Your task to perform on an android device: make emails show in primary in the gmail app Image 0: 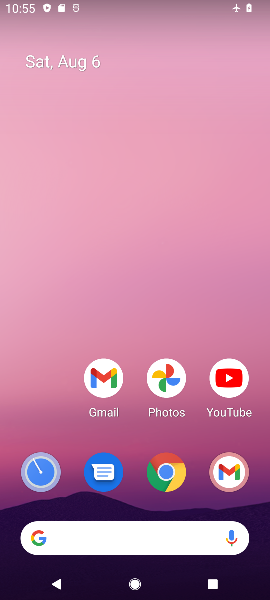
Step 0: drag from (172, 512) to (85, 201)
Your task to perform on an android device: make emails show in primary in the gmail app Image 1: 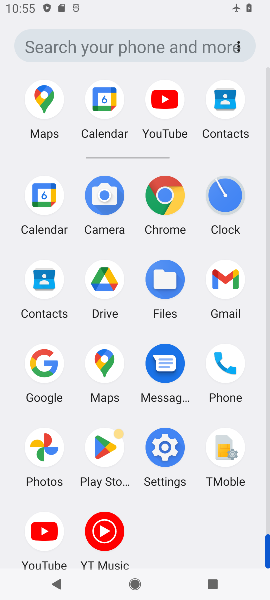
Step 1: click (163, 455)
Your task to perform on an android device: make emails show in primary in the gmail app Image 2: 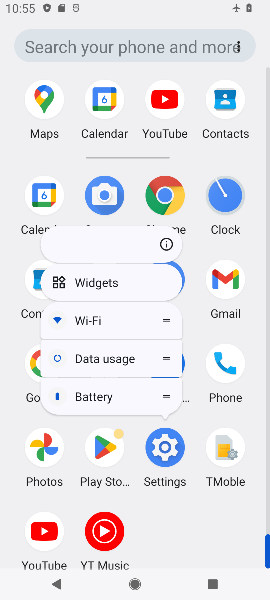
Step 2: click (159, 451)
Your task to perform on an android device: make emails show in primary in the gmail app Image 3: 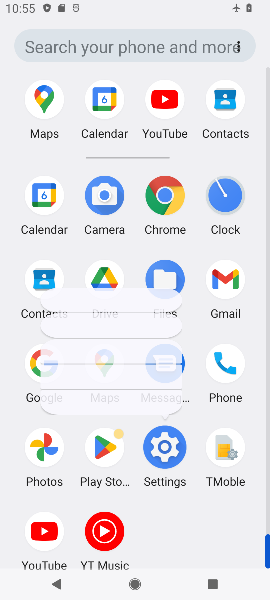
Step 3: click (159, 451)
Your task to perform on an android device: make emails show in primary in the gmail app Image 4: 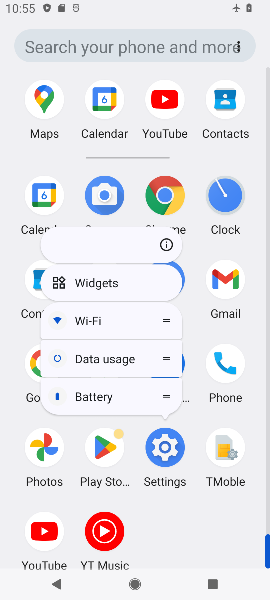
Step 4: click (160, 449)
Your task to perform on an android device: make emails show in primary in the gmail app Image 5: 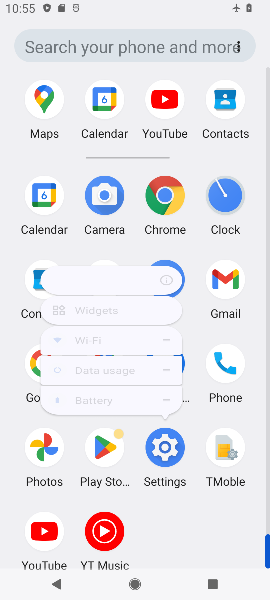
Step 5: click (165, 448)
Your task to perform on an android device: make emails show in primary in the gmail app Image 6: 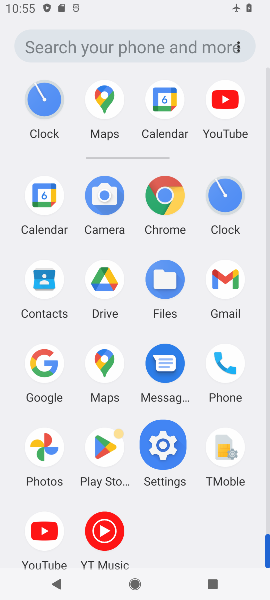
Step 6: click (180, 443)
Your task to perform on an android device: make emails show in primary in the gmail app Image 7: 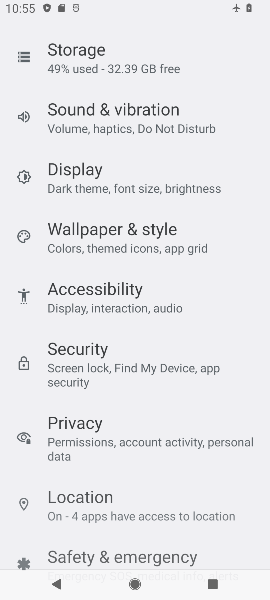
Step 7: click (179, 443)
Your task to perform on an android device: make emails show in primary in the gmail app Image 8: 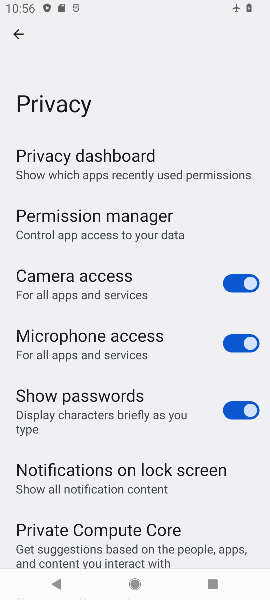
Step 8: click (12, 40)
Your task to perform on an android device: make emails show in primary in the gmail app Image 9: 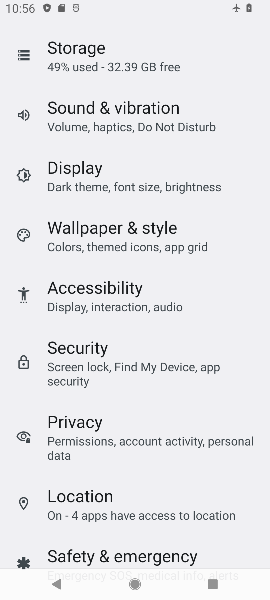
Step 9: drag from (77, 57) to (100, 417)
Your task to perform on an android device: make emails show in primary in the gmail app Image 10: 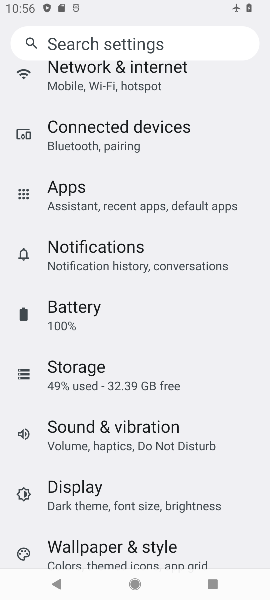
Step 10: drag from (65, 176) to (94, 488)
Your task to perform on an android device: make emails show in primary in the gmail app Image 11: 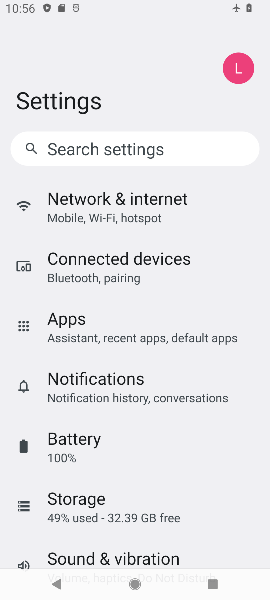
Step 11: click (101, 199)
Your task to perform on an android device: make emails show in primary in the gmail app Image 12: 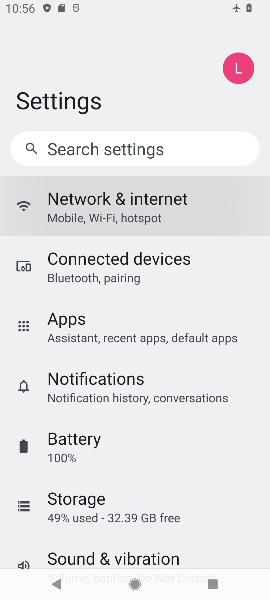
Step 12: click (101, 200)
Your task to perform on an android device: make emails show in primary in the gmail app Image 13: 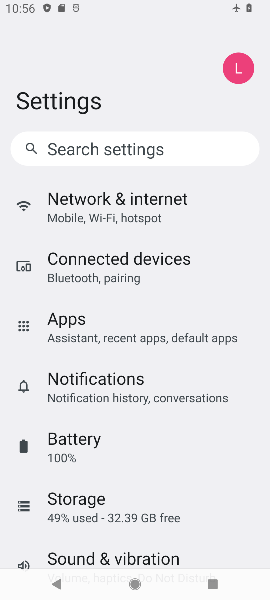
Step 13: click (107, 209)
Your task to perform on an android device: make emails show in primary in the gmail app Image 14: 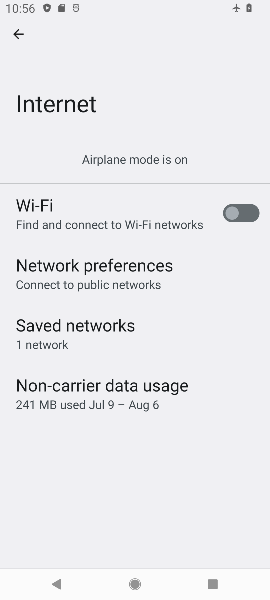
Step 14: click (246, 204)
Your task to perform on an android device: make emails show in primary in the gmail app Image 15: 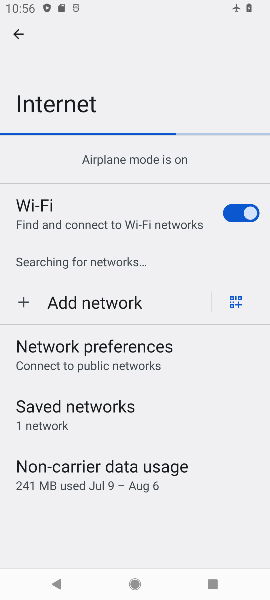
Step 15: click (13, 37)
Your task to perform on an android device: make emails show in primary in the gmail app Image 16: 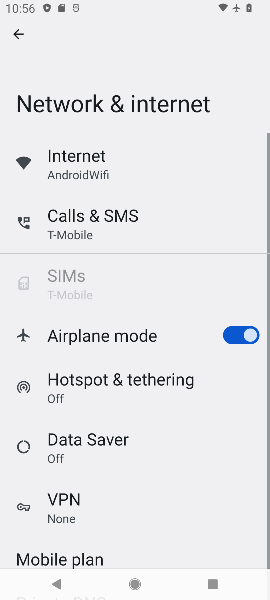
Step 16: click (245, 327)
Your task to perform on an android device: make emails show in primary in the gmail app Image 17: 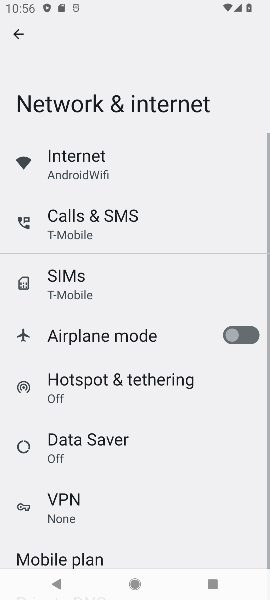
Step 17: press back button
Your task to perform on an android device: make emails show in primary in the gmail app Image 18: 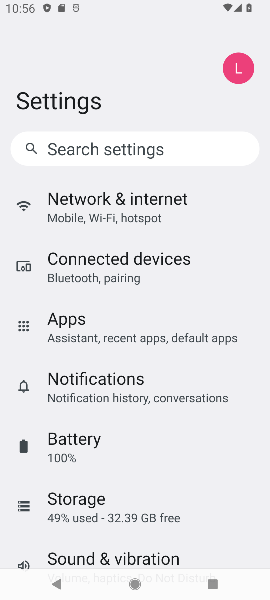
Step 18: press back button
Your task to perform on an android device: make emails show in primary in the gmail app Image 19: 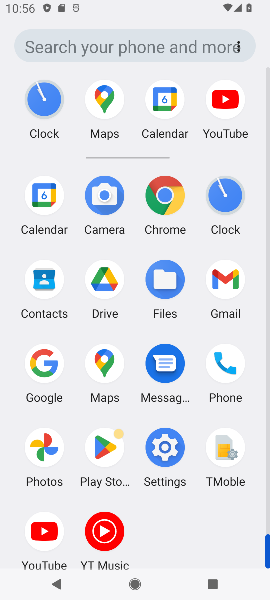
Step 19: drag from (151, 459) to (108, 251)
Your task to perform on an android device: make emails show in primary in the gmail app Image 20: 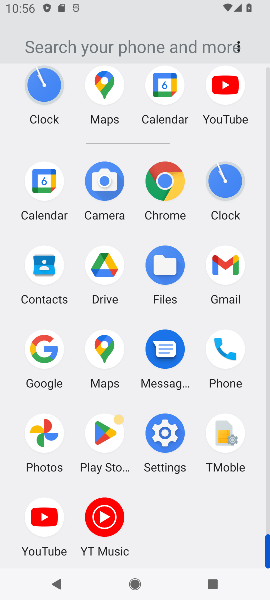
Step 20: click (37, 335)
Your task to perform on an android device: make emails show in primary in the gmail app Image 21: 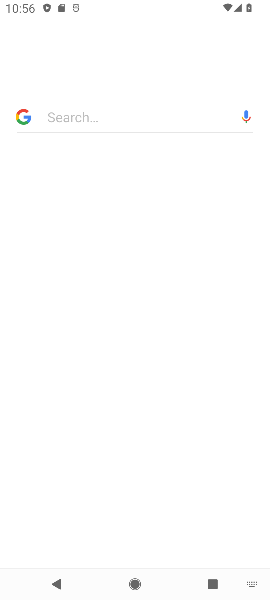
Step 21: click (231, 265)
Your task to perform on an android device: make emails show in primary in the gmail app Image 22: 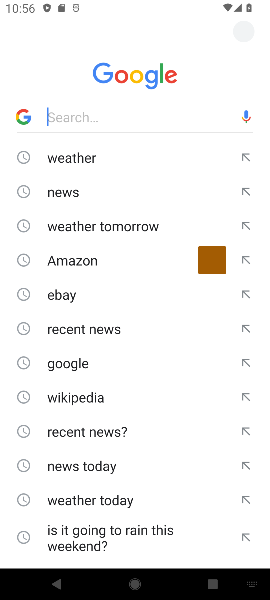
Step 22: press back button
Your task to perform on an android device: make emails show in primary in the gmail app Image 23: 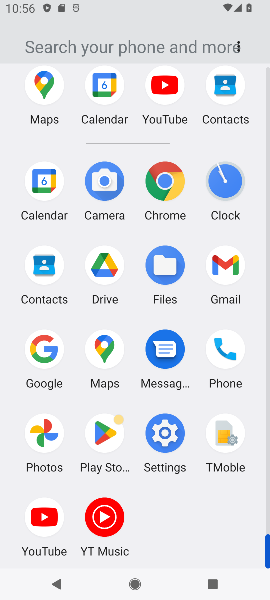
Step 23: click (228, 270)
Your task to perform on an android device: make emails show in primary in the gmail app Image 24: 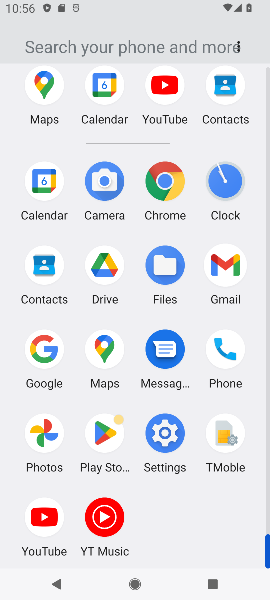
Step 24: click (228, 270)
Your task to perform on an android device: make emails show in primary in the gmail app Image 25: 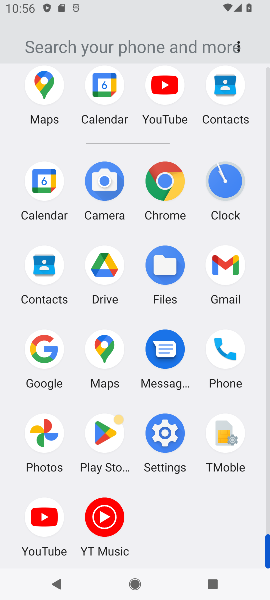
Step 25: click (228, 270)
Your task to perform on an android device: make emails show in primary in the gmail app Image 26: 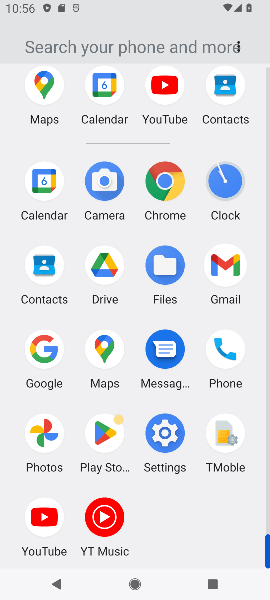
Step 26: click (227, 272)
Your task to perform on an android device: make emails show in primary in the gmail app Image 27: 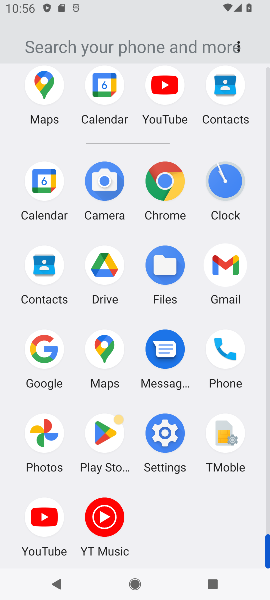
Step 27: click (227, 272)
Your task to perform on an android device: make emails show in primary in the gmail app Image 28: 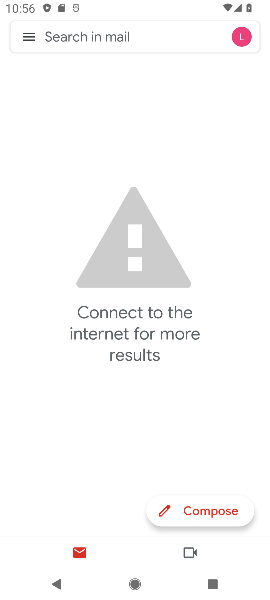
Step 28: click (227, 272)
Your task to perform on an android device: make emails show in primary in the gmail app Image 29: 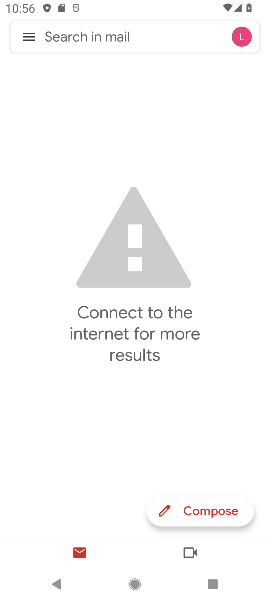
Step 29: click (23, 35)
Your task to perform on an android device: make emails show in primary in the gmail app Image 30: 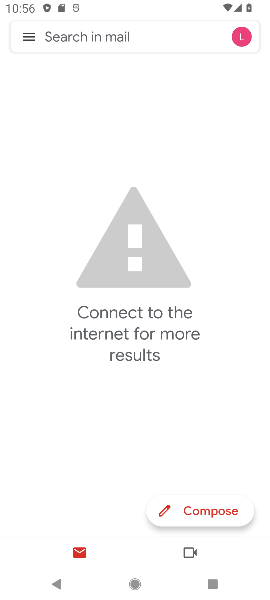
Step 30: click (28, 37)
Your task to perform on an android device: make emails show in primary in the gmail app Image 31: 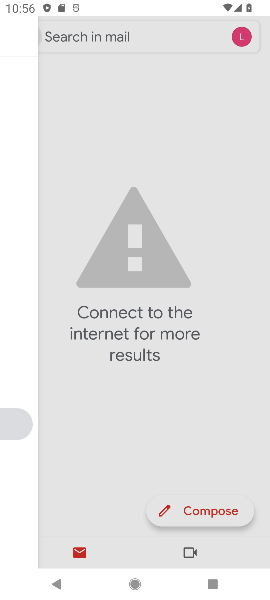
Step 31: click (31, 45)
Your task to perform on an android device: make emails show in primary in the gmail app Image 32: 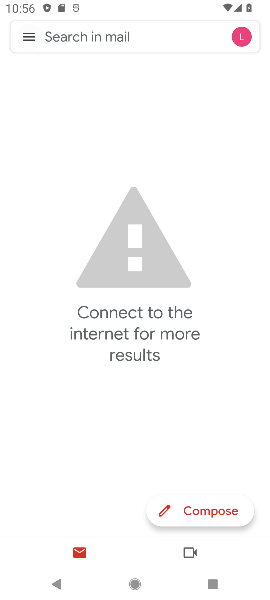
Step 32: click (32, 46)
Your task to perform on an android device: make emails show in primary in the gmail app Image 33: 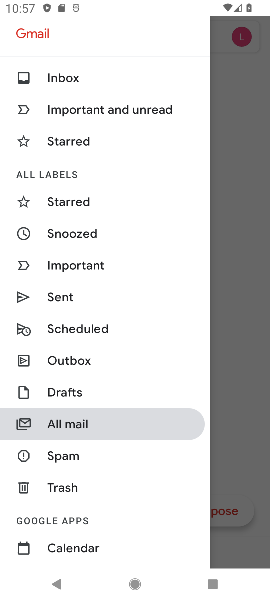
Step 33: click (66, 424)
Your task to perform on an android device: make emails show in primary in the gmail app Image 34: 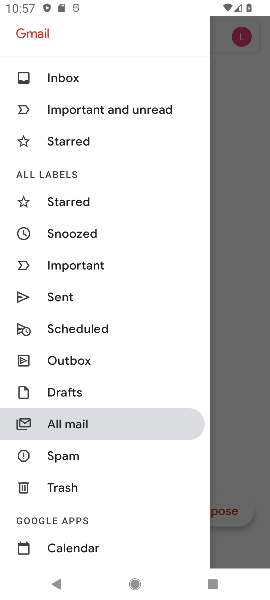
Step 34: click (66, 424)
Your task to perform on an android device: make emails show in primary in the gmail app Image 35: 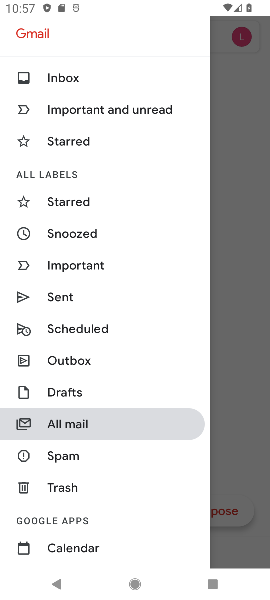
Step 35: drag from (62, 439) to (38, 193)
Your task to perform on an android device: make emails show in primary in the gmail app Image 36: 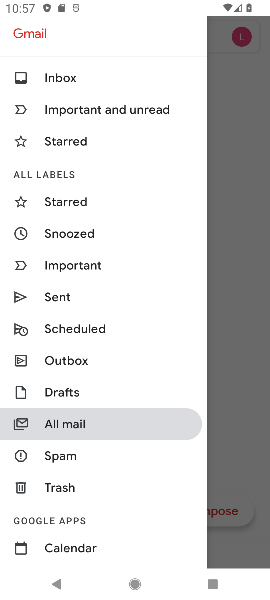
Step 36: drag from (84, 409) to (90, 76)
Your task to perform on an android device: make emails show in primary in the gmail app Image 37: 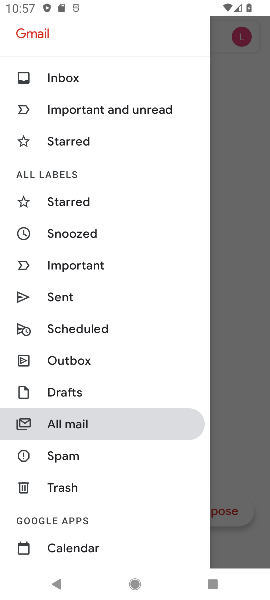
Step 37: drag from (79, 429) to (60, 223)
Your task to perform on an android device: make emails show in primary in the gmail app Image 38: 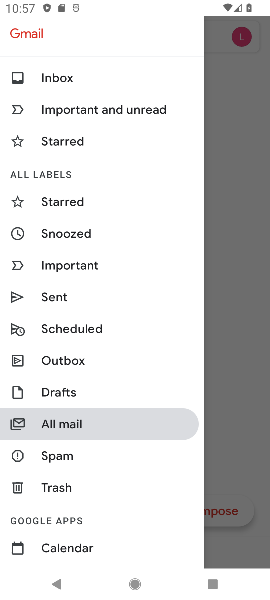
Step 38: drag from (74, 412) to (97, 149)
Your task to perform on an android device: make emails show in primary in the gmail app Image 39: 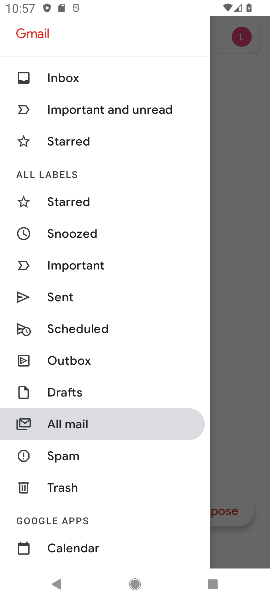
Step 39: drag from (97, 440) to (93, 205)
Your task to perform on an android device: make emails show in primary in the gmail app Image 40: 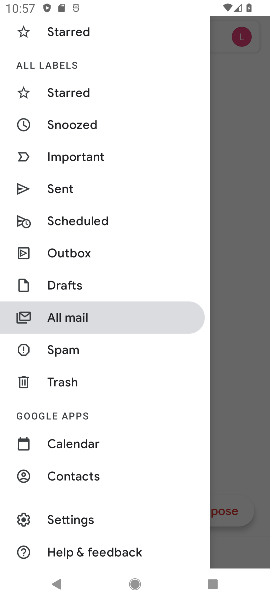
Step 40: drag from (82, 385) to (72, 165)
Your task to perform on an android device: make emails show in primary in the gmail app Image 41: 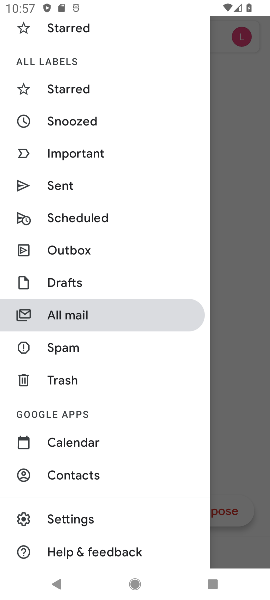
Step 41: drag from (84, 381) to (56, 242)
Your task to perform on an android device: make emails show in primary in the gmail app Image 42: 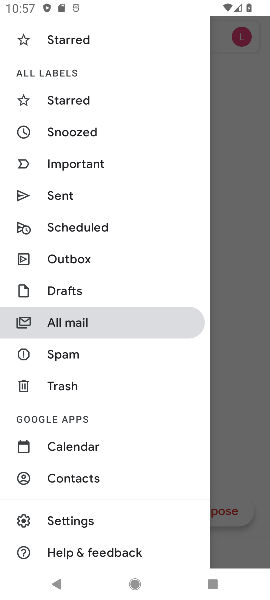
Step 42: click (72, 522)
Your task to perform on an android device: make emails show in primary in the gmail app Image 43: 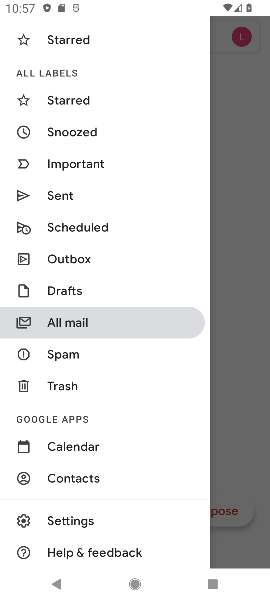
Step 43: click (72, 522)
Your task to perform on an android device: make emails show in primary in the gmail app Image 44: 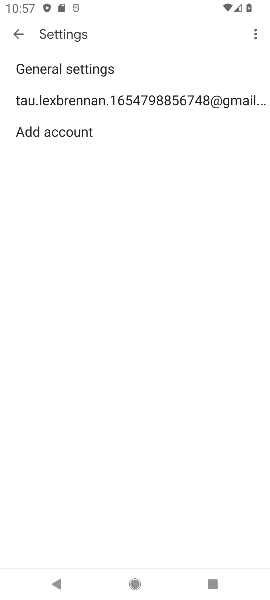
Step 44: click (46, 101)
Your task to perform on an android device: make emails show in primary in the gmail app Image 45: 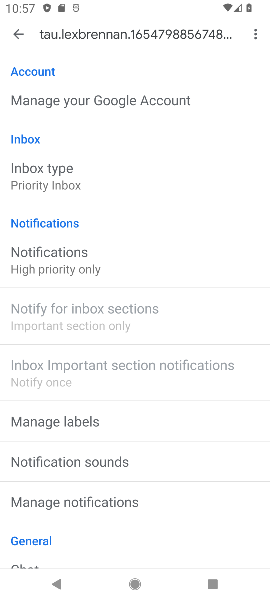
Step 45: click (52, 260)
Your task to perform on an android device: make emails show in primary in the gmail app Image 46: 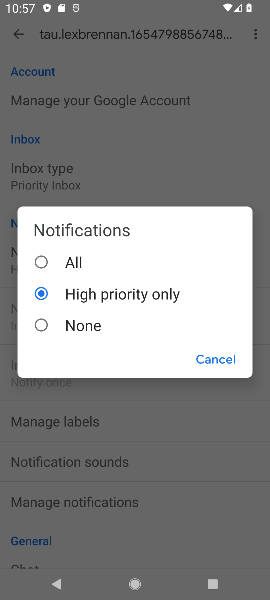
Step 46: click (181, 156)
Your task to perform on an android device: make emails show in primary in the gmail app Image 47: 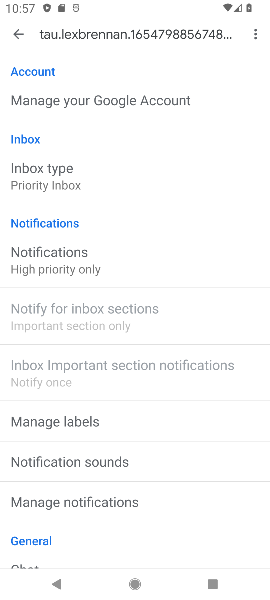
Step 47: click (39, 177)
Your task to perform on an android device: make emails show in primary in the gmail app Image 48: 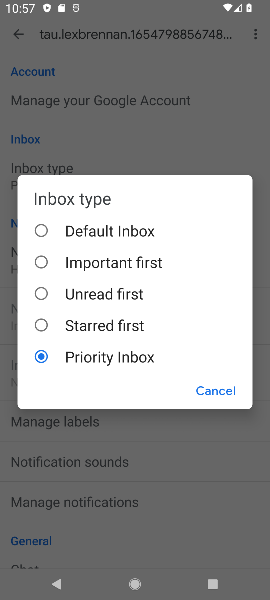
Step 48: click (43, 229)
Your task to perform on an android device: make emails show in primary in the gmail app Image 49: 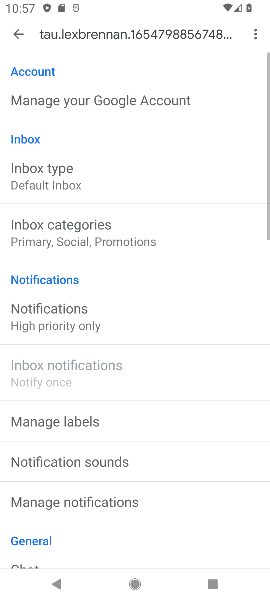
Step 49: task complete